Your task to perform on an android device: turn on wifi Image 0: 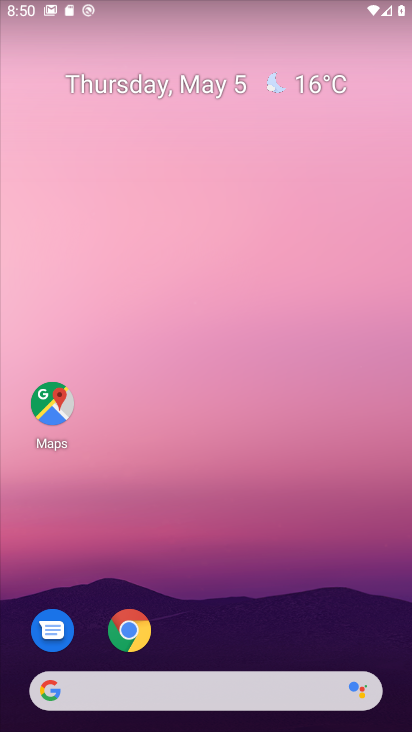
Step 0: drag from (241, 598) to (295, 97)
Your task to perform on an android device: turn on wifi Image 1: 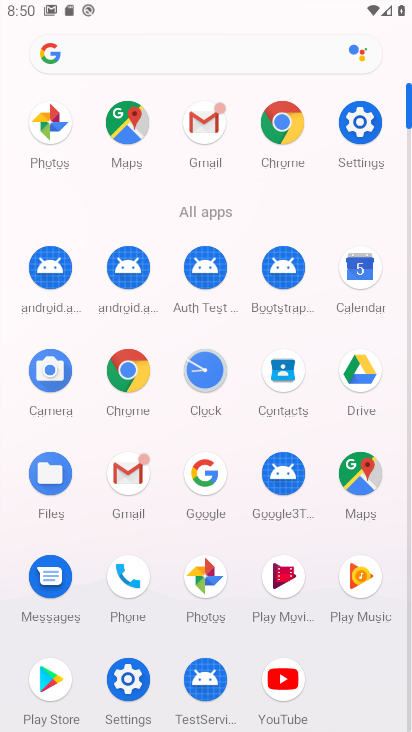
Step 1: click (365, 127)
Your task to perform on an android device: turn on wifi Image 2: 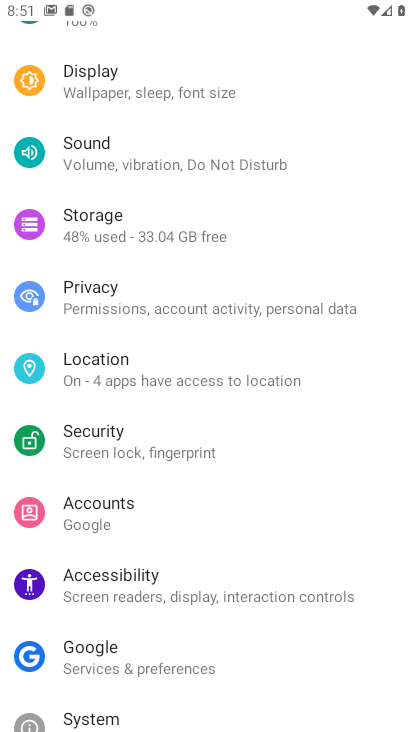
Step 2: drag from (208, 195) to (153, 619)
Your task to perform on an android device: turn on wifi Image 3: 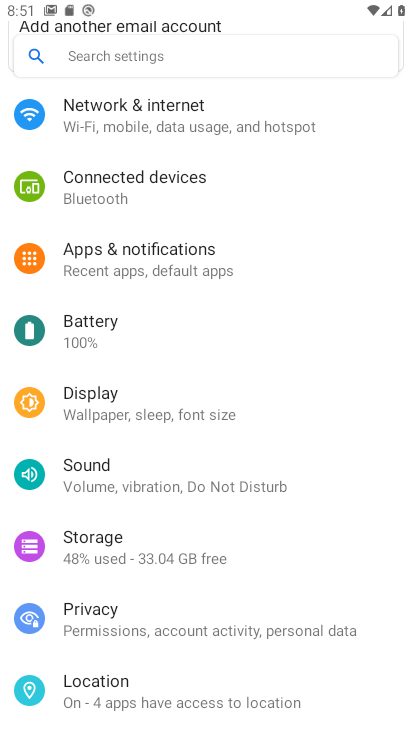
Step 3: drag from (301, 180) to (238, 610)
Your task to perform on an android device: turn on wifi Image 4: 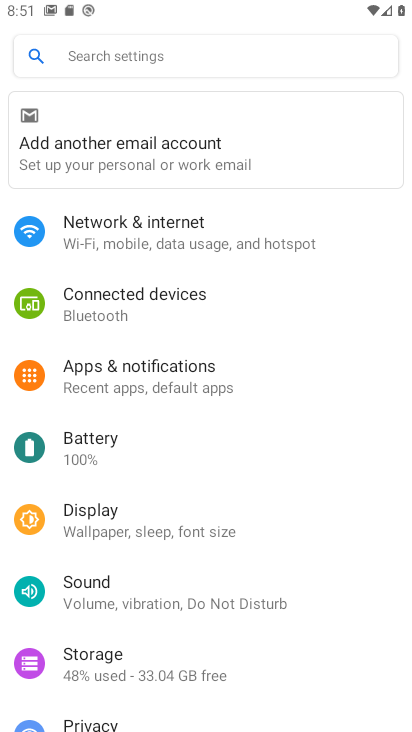
Step 4: click (138, 222)
Your task to perform on an android device: turn on wifi Image 5: 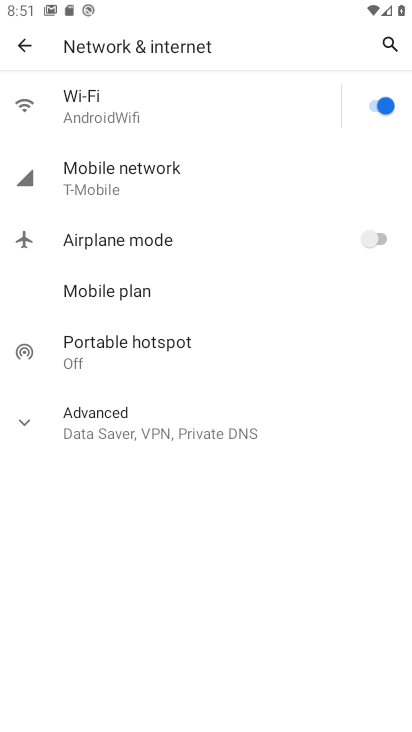
Step 5: task complete